Your task to perform on an android device: turn on bluetooth scan Image 0: 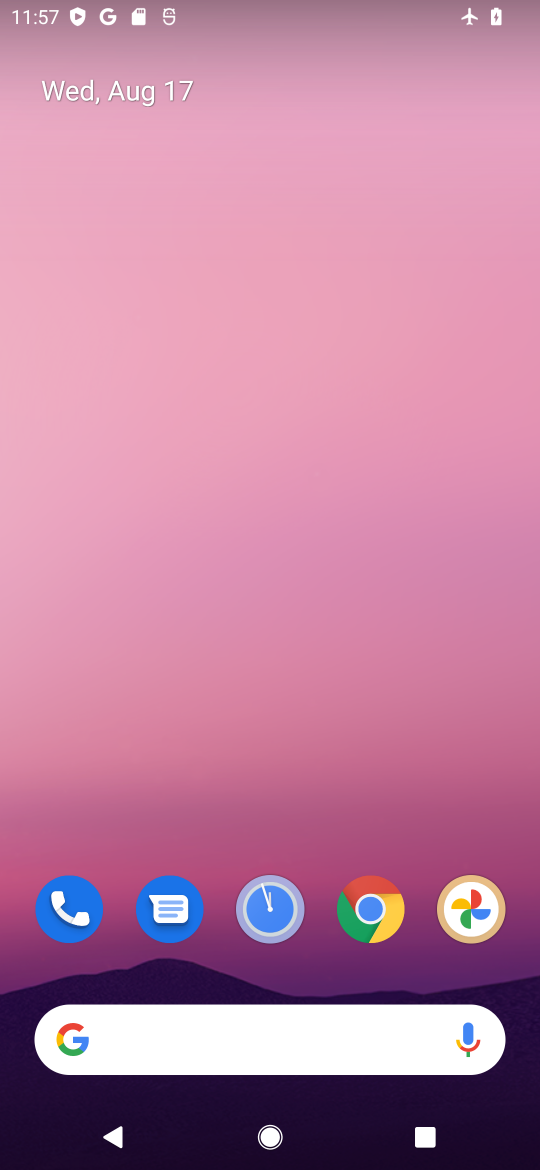
Step 0: drag from (328, 954) to (269, 286)
Your task to perform on an android device: turn on bluetooth scan Image 1: 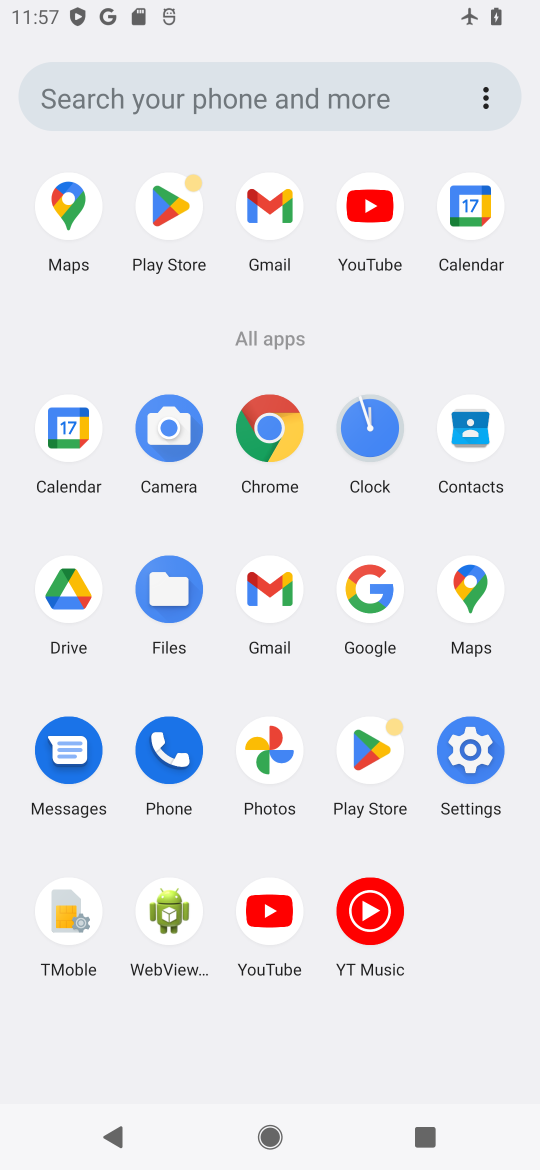
Step 1: click (471, 745)
Your task to perform on an android device: turn on bluetooth scan Image 2: 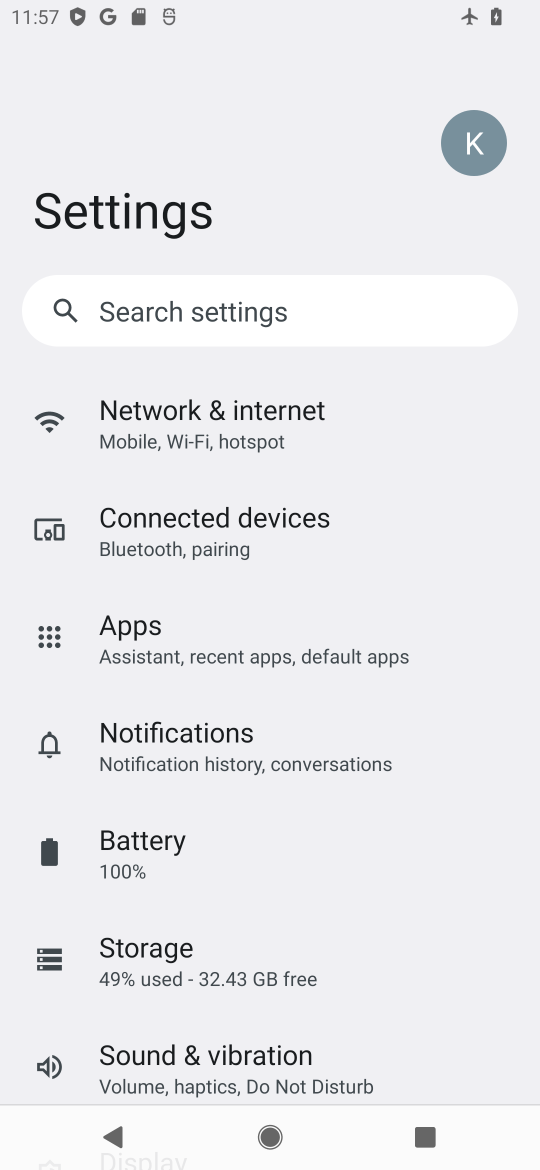
Step 2: drag from (375, 973) to (344, 297)
Your task to perform on an android device: turn on bluetooth scan Image 3: 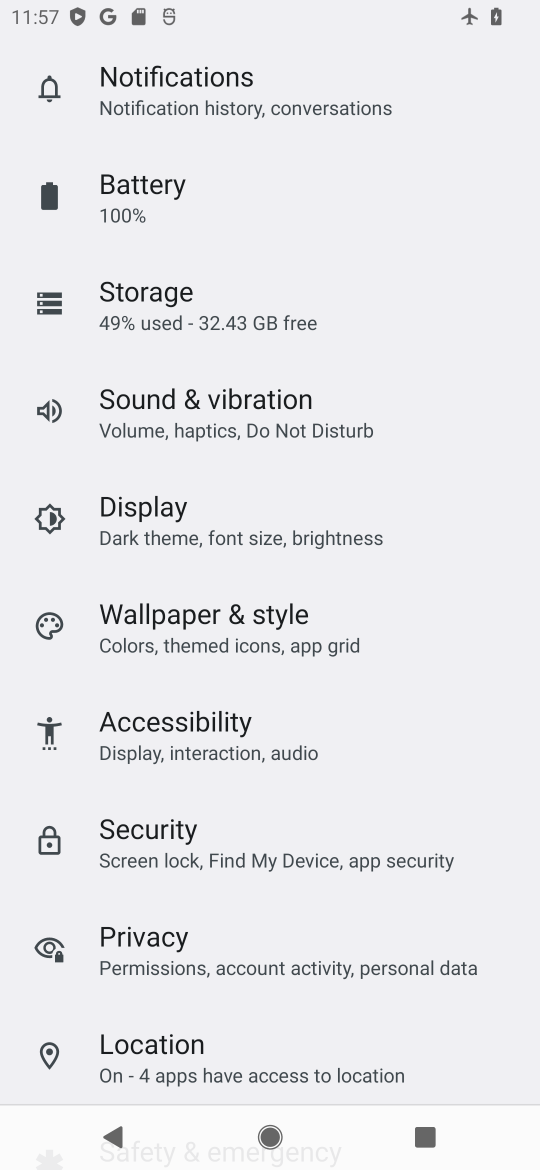
Step 3: drag from (344, 1034) to (307, 484)
Your task to perform on an android device: turn on bluetooth scan Image 4: 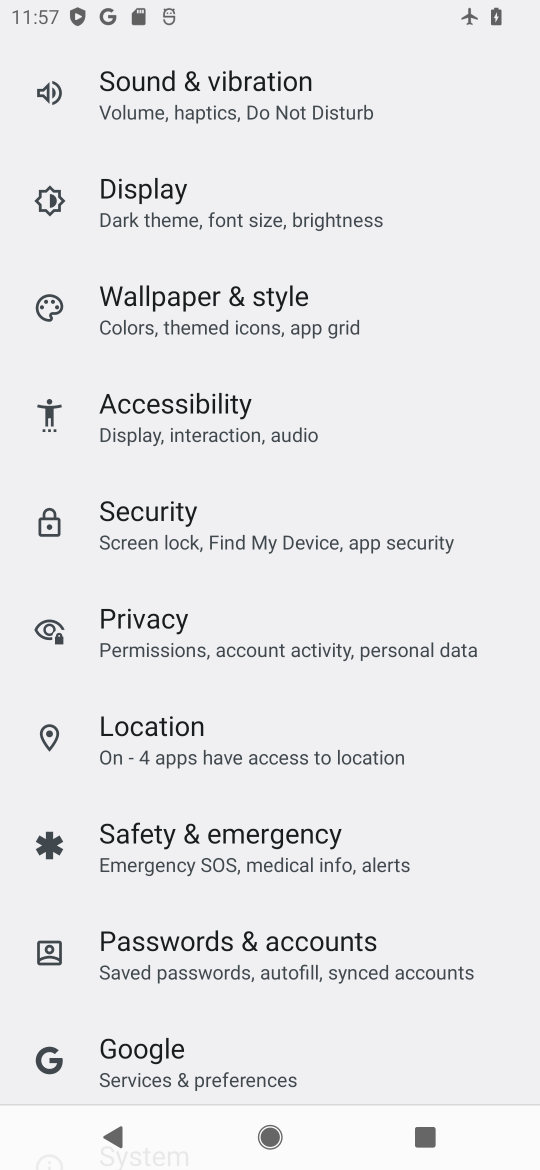
Step 4: drag from (337, 1037) to (275, 467)
Your task to perform on an android device: turn on bluetooth scan Image 5: 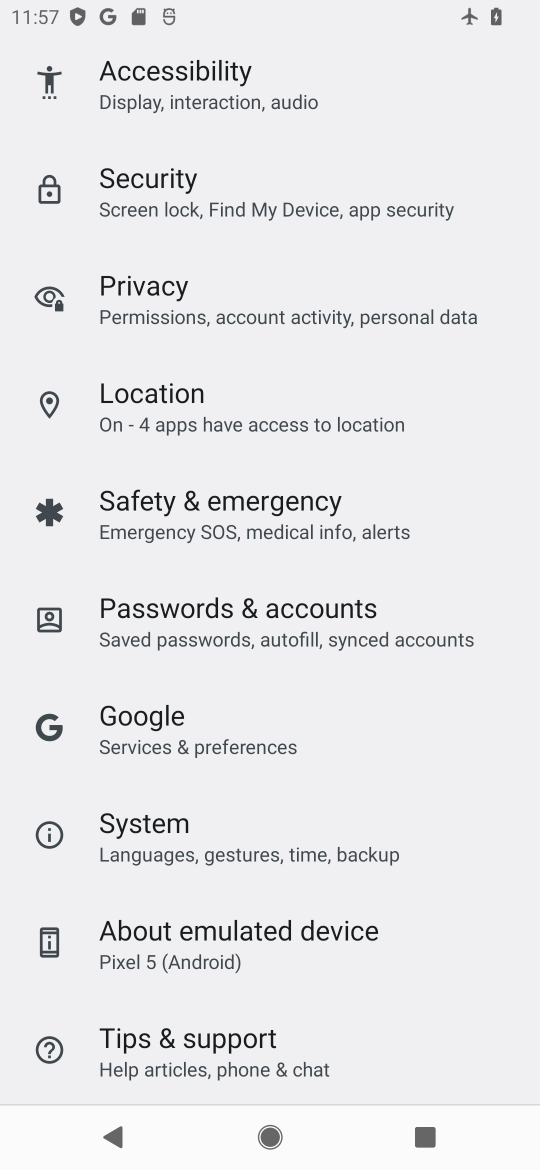
Step 5: click (163, 391)
Your task to perform on an android device: turn on bluetooth scan Image 6: 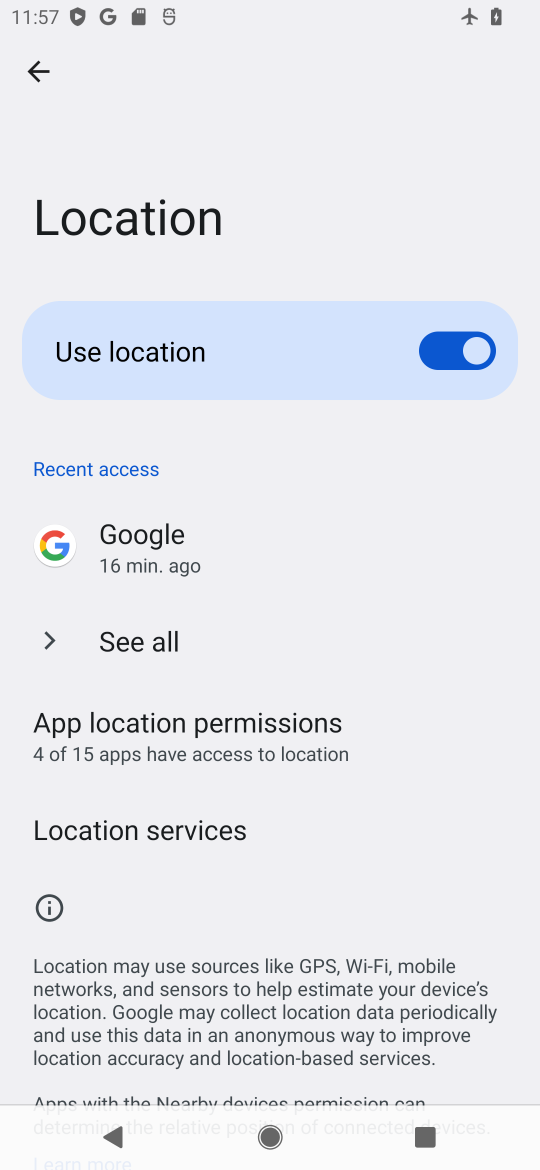
Step 6: click (134, 826)
Your task to perform on an android device: turn on bluetooth scan Image 7: 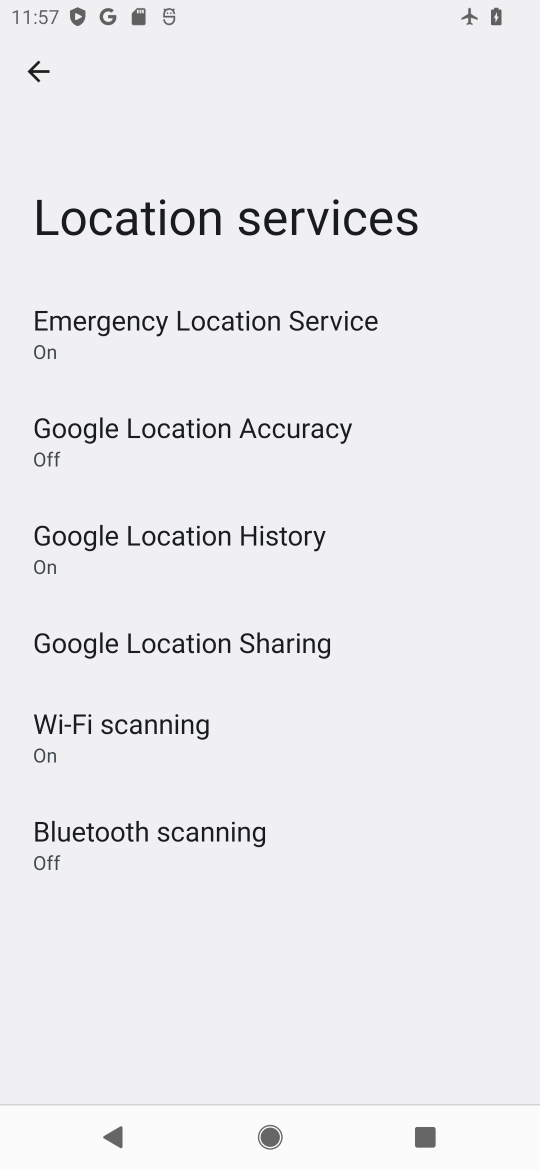
Step 7: click (151, 824)
Your task to perform on an android device: turn on bluetooth scan Image 8: 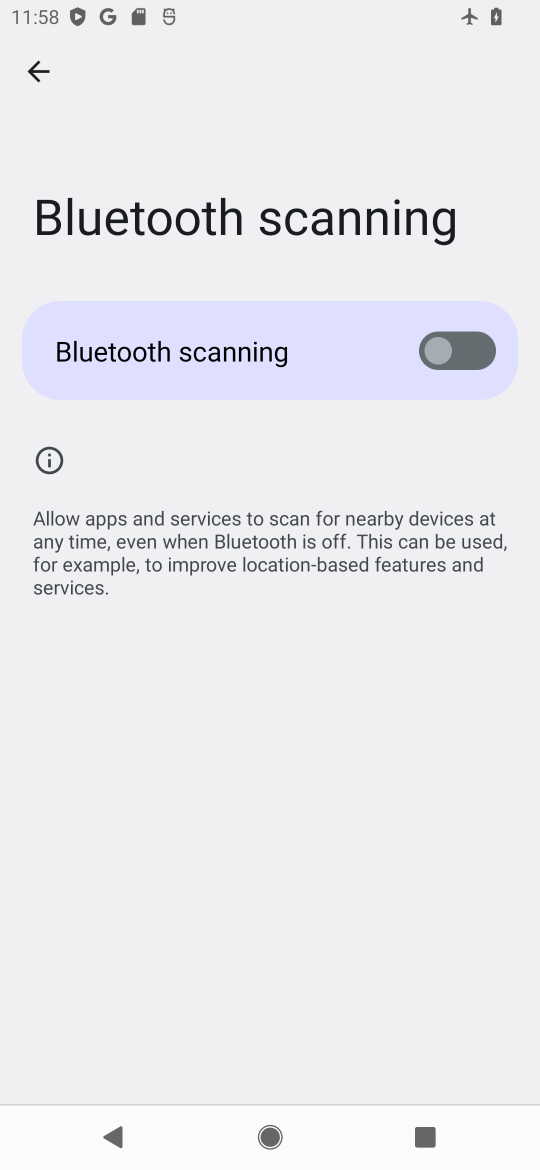
Step 8: click (459, 348)
Your task to perform on an android device: turn on bluetooth scan Image 9: 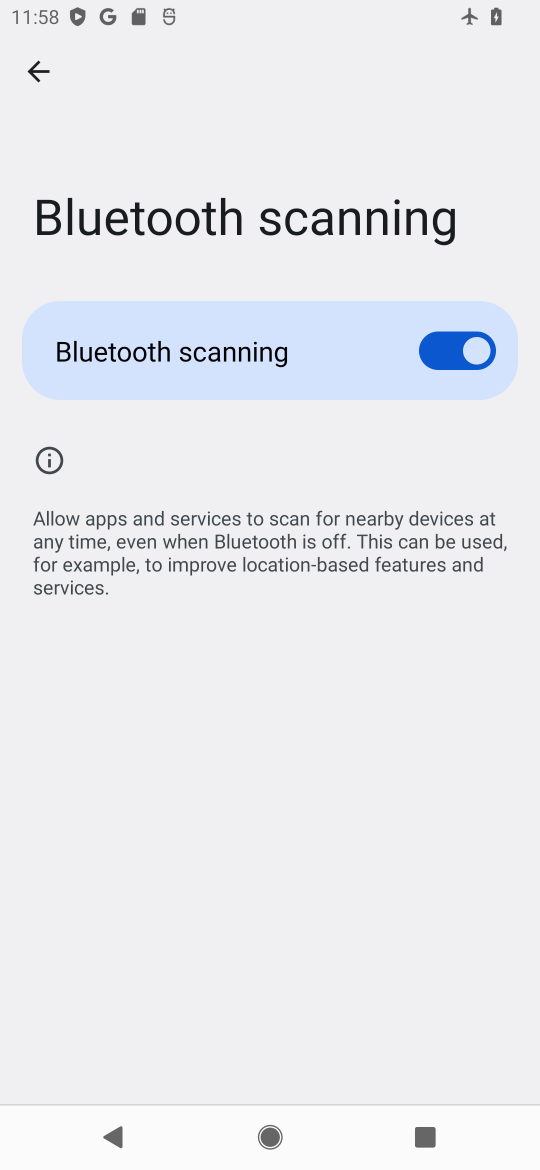
Step 9: task complete